Your task to perform on an android device: open app "Google Play Music" Image 0: 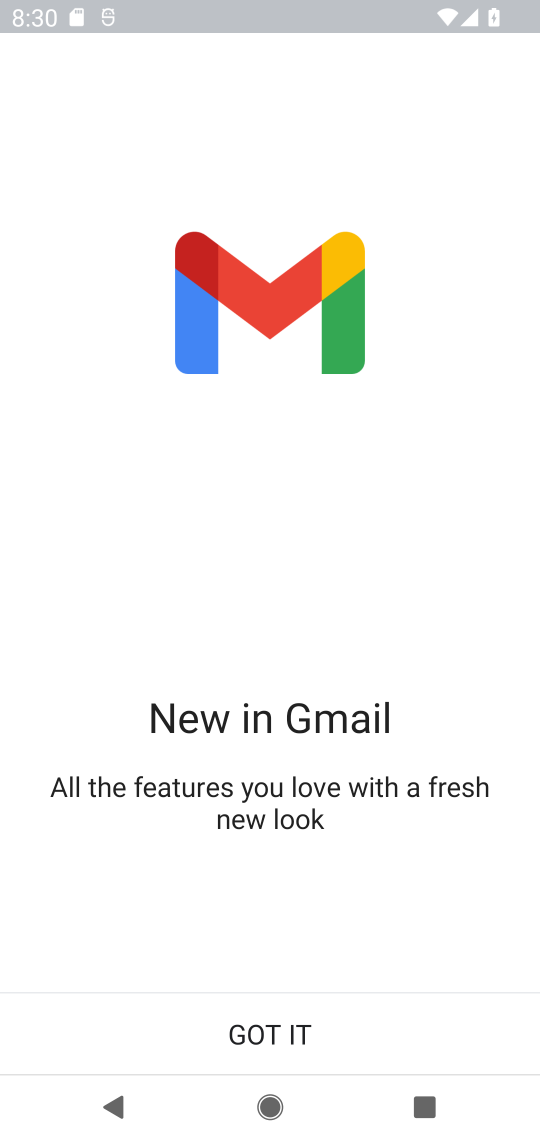
Step 0: press home button
Your task to perform on an android device: open app "Google Play Music" Image 1: 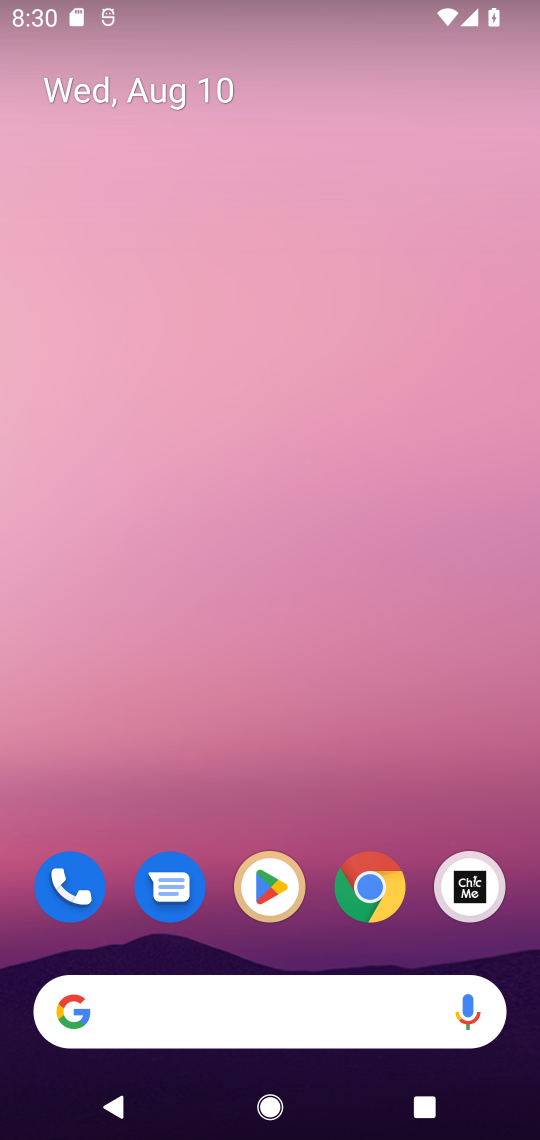
Step 1: click (251, 906)
Your task to perform on an android device: open app "Google Play Music" Image 2: 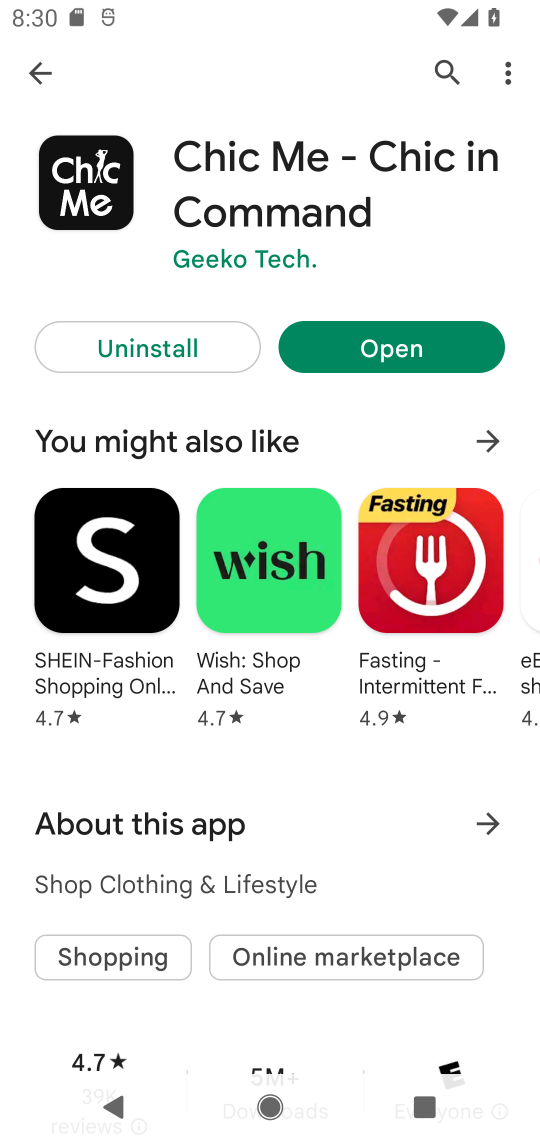
Step 2: click (449, 72)
Your task to perform on an android device: open app "Google Play Music" Image 3: 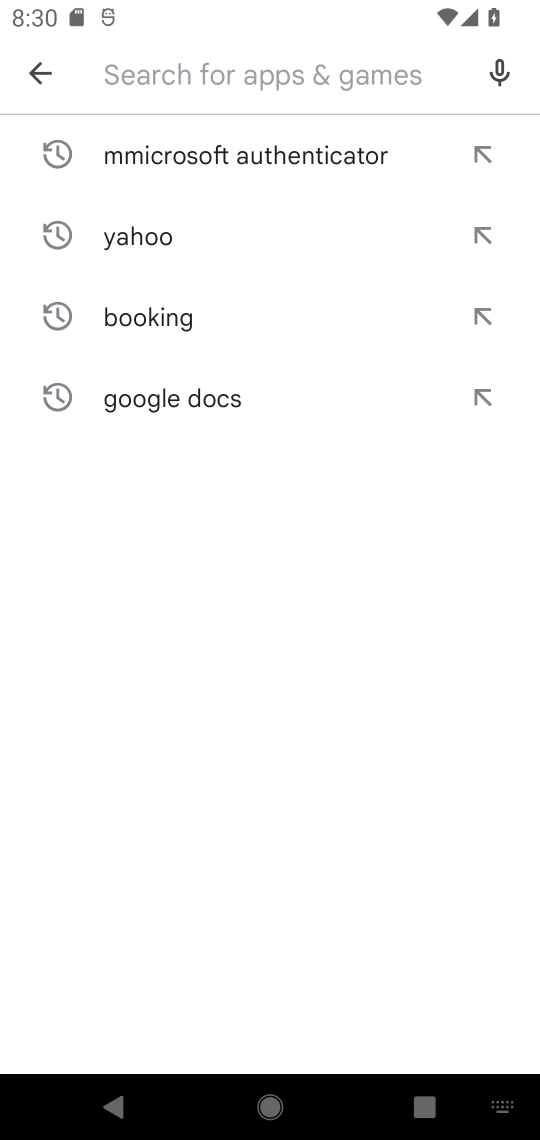
Step 3: type "google play music"
Your task to perform on an android device: open app "Google Play Music" Image 4: 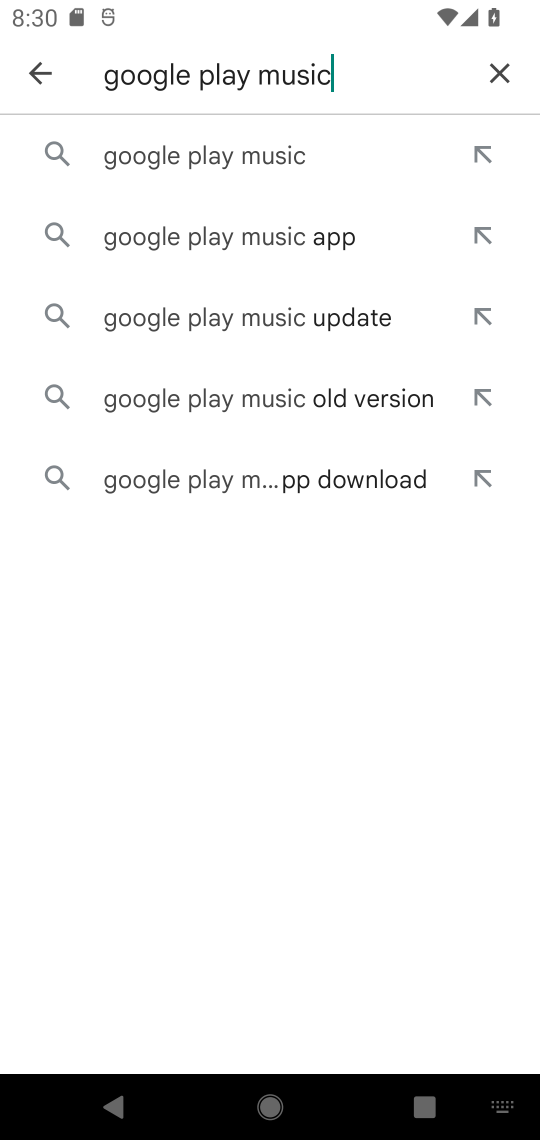
Step 4: click (300, 137)
Your task to perform on an android device: open app "Google Play Music" Image 5: 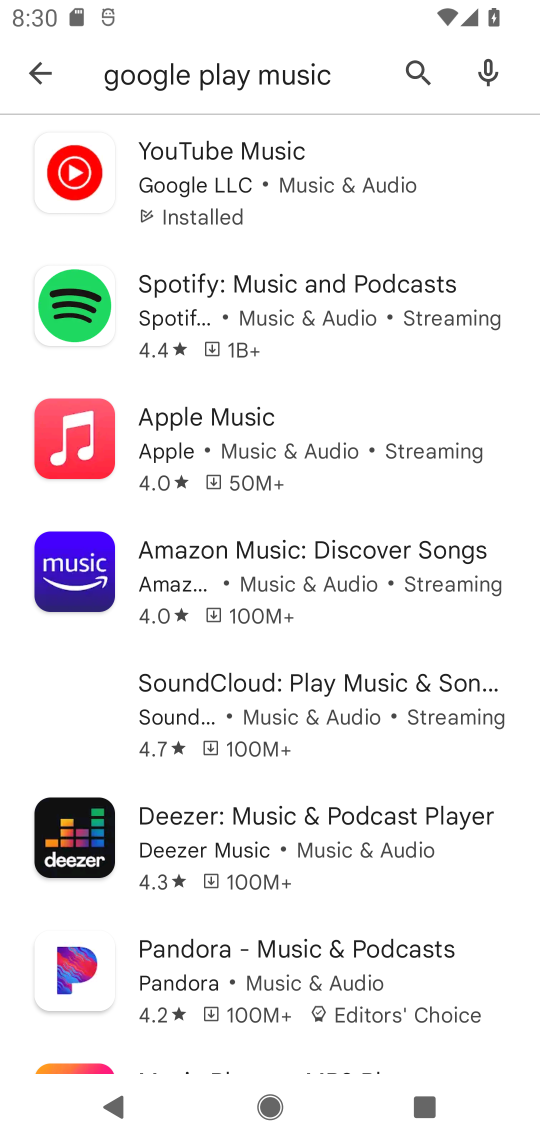
Step 5: click (382, 181)
Your task to perform on an android device: open app "Google Play Music" Image 6: 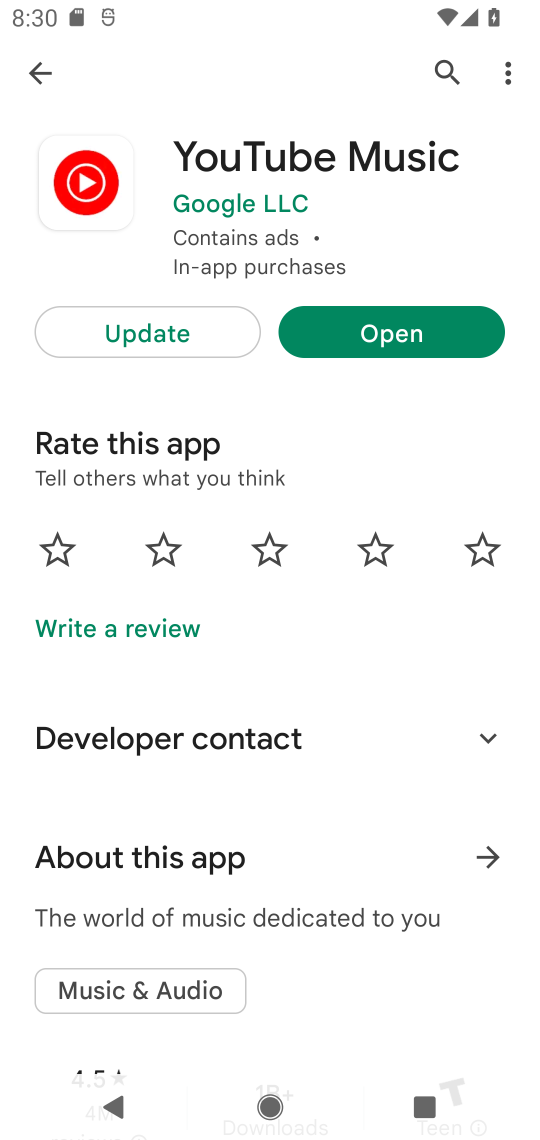
Step 6: click (441, 310)
Your task to perform on an android device: open app "Google Play Music" Image 7: 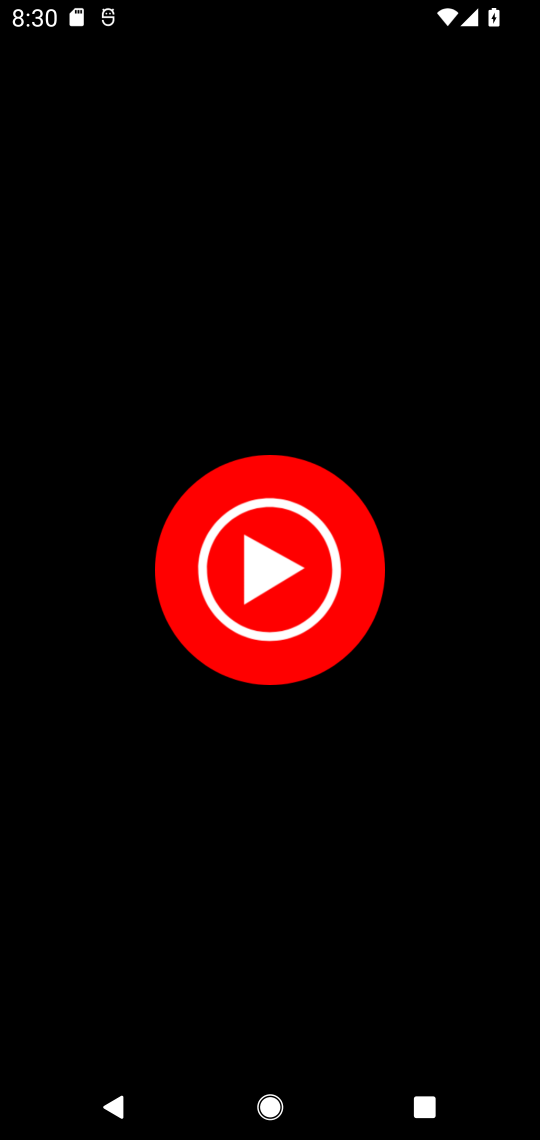
Step 7: task complete